Your task to perform on an android device: turn off notifications in google photos Image 0: 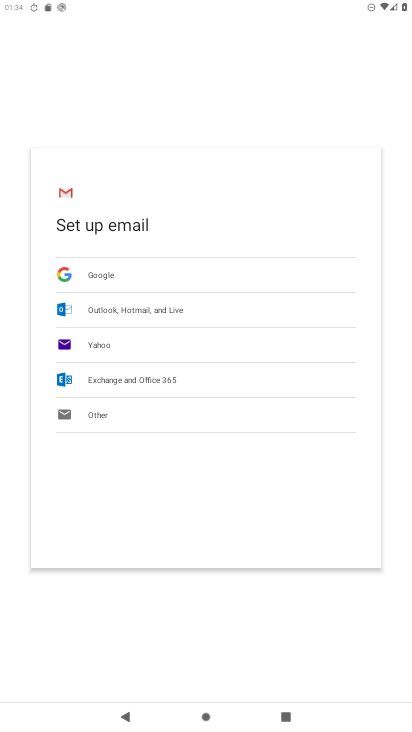
Step 0: press home button
Your task to perform on an android device: turn off notifications in google photos Image 1: 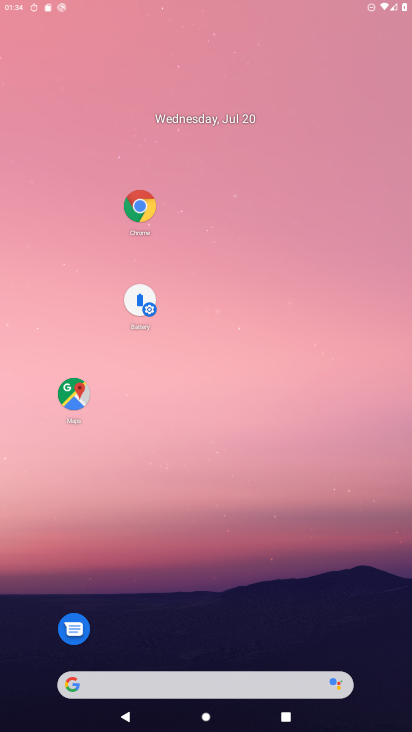
Step 1: drag from (269, 544) to (310, 209)
Your task to perform on an android device: turn off notifications in google photos Image 2: 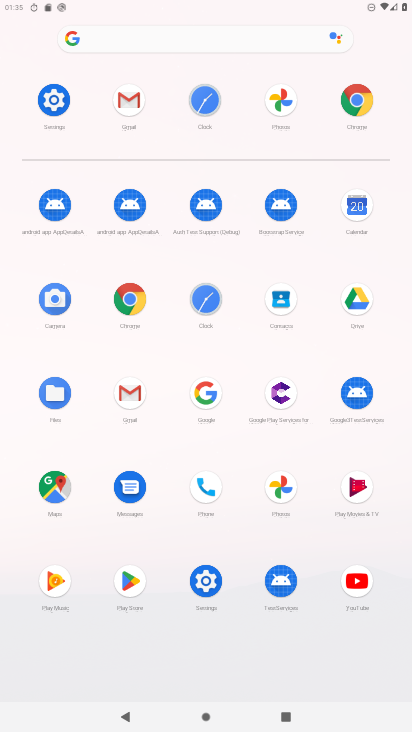
Step 2: click (276, 485)
Your task to perform on an android device: turn off notifications in google photos Image 3: 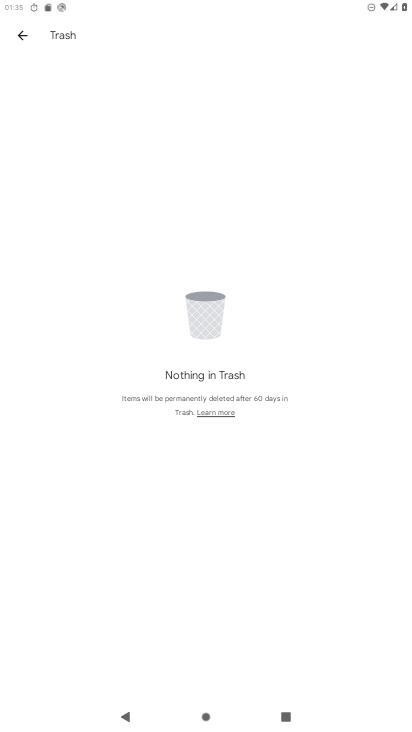
Step 3: drag from (270, 508) to (283, 430)
Your task to perform on an android device: turn off notifications in google photos Image 4: 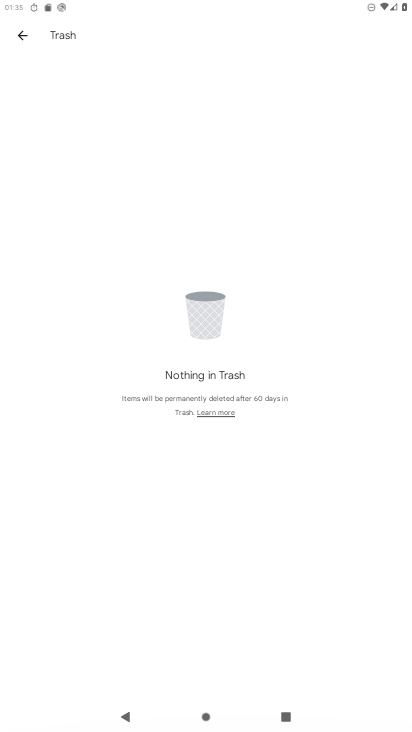
Step 4: click (316, 241)
Your task to perform on an android device: turn off notifications in google photos Image 5: 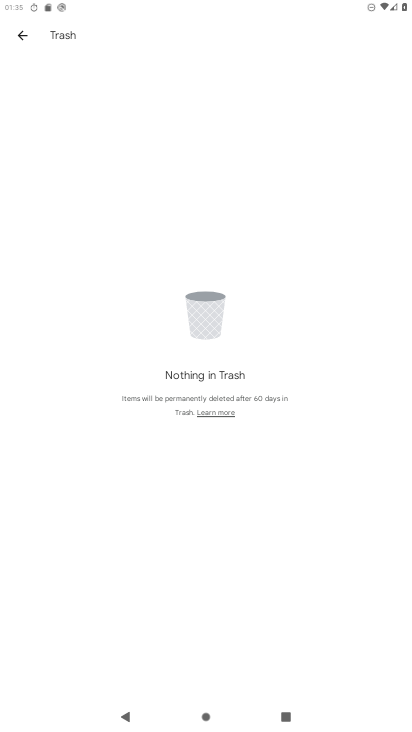
Step 5: drag from (320, 235) to (330, 199)
Your task to perform on an android device: turn off notifications in google photos Image 6: 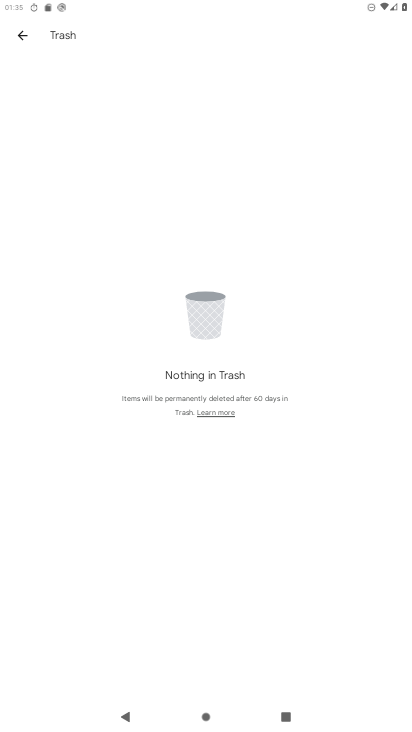
Step 6: click (338, 152)
Your task to perform on an android device: turn off notifications in google photos Image 7: 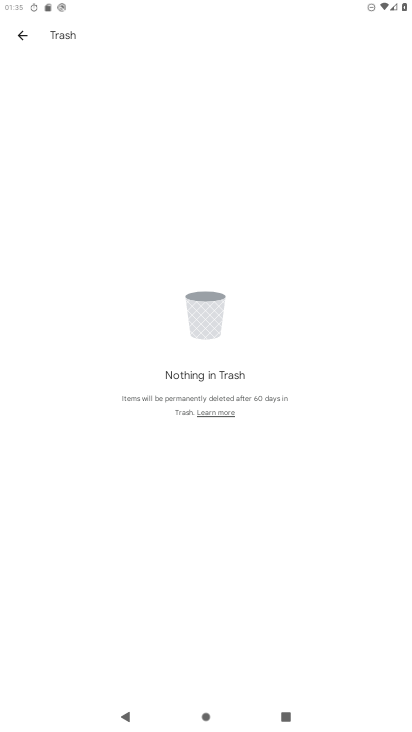
Step 7: drag from (219, 565) to (233, 342)
Your task to perform on an android device: turn off notifications in google photos Image 8: 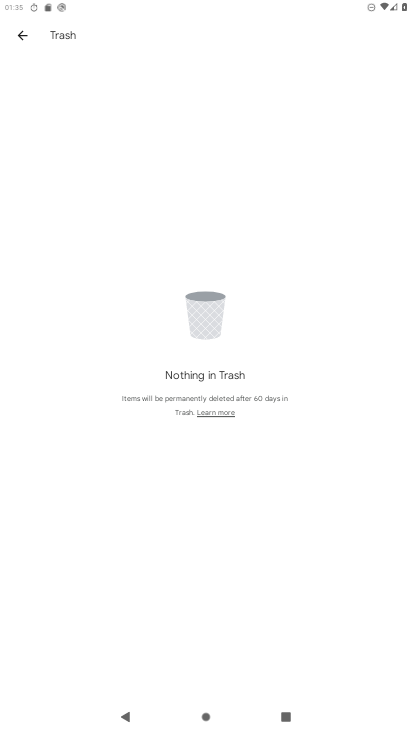
Step 8: drag from (233, 512) to (233, 451)
Your task to perform on an android device: turn off notifications in google photos Image 9: 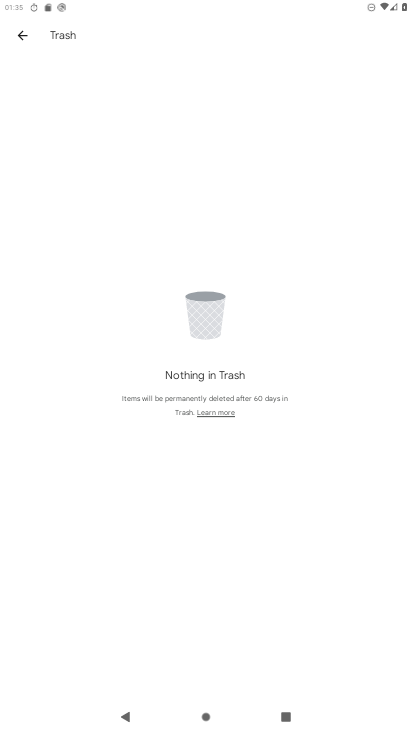
Step 9: click (263, 256)
Your task to perform on an android device: turn off notifications in google photos Image 10: 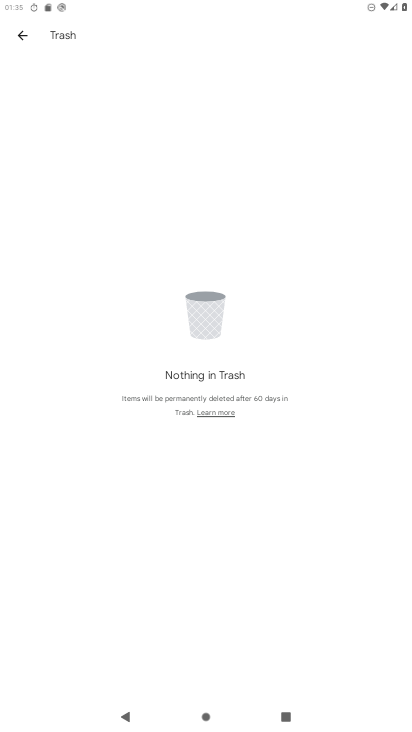
Step 10: click (267, 253)
Your task to perform on an android device: turn off notifications in google photos Image 11: 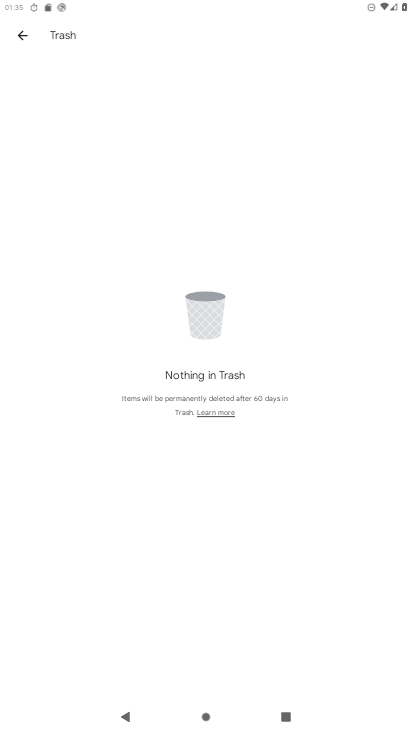
Step 11: click (18, 36)
Your task to perform on an android device: turn off notifications in google photos Image 12: 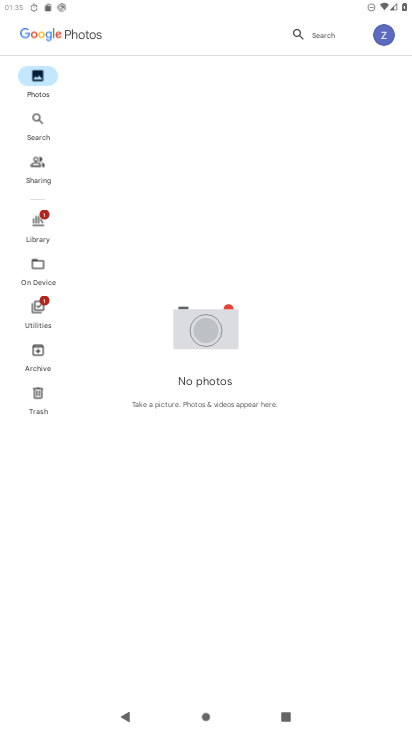
Step 12: click (381, 38)
Your task to perform on an android device: turn off notifications in google photos Image 13: 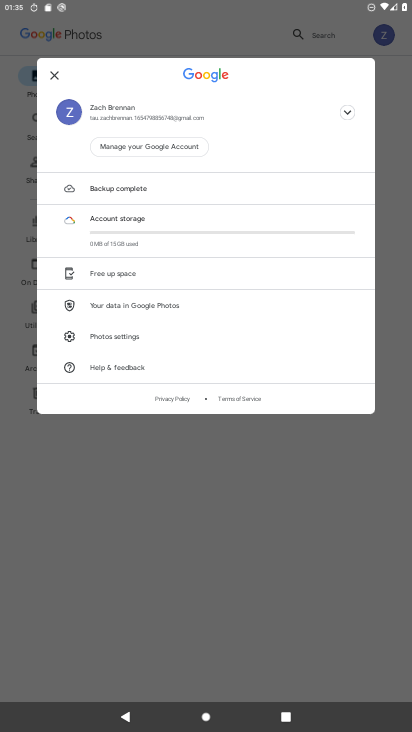
Step 13: click (98, 338)
Your task to perform on an android device: turn off notifications in google photos Image 14: 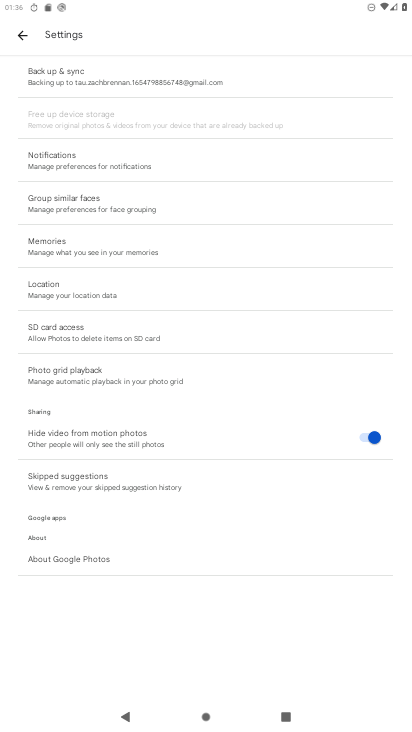
Step 14: click (75, 168)
Your task to perform on an android device: turn off notifications in google photos Image 15: 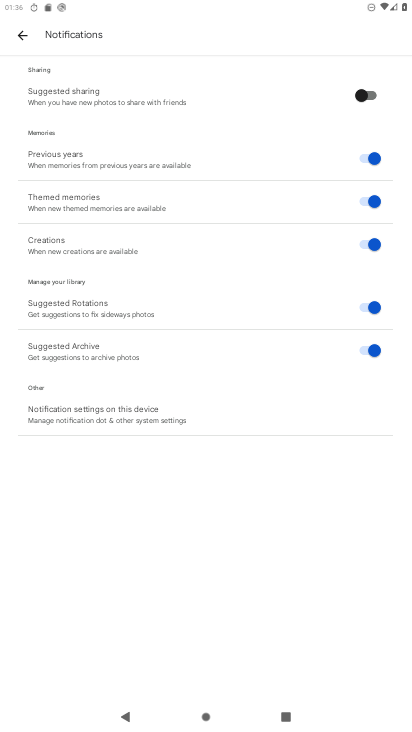
Step 15: click (82, 420)
Your task to perform on an android device: turn off notifications in google photos Image 16: 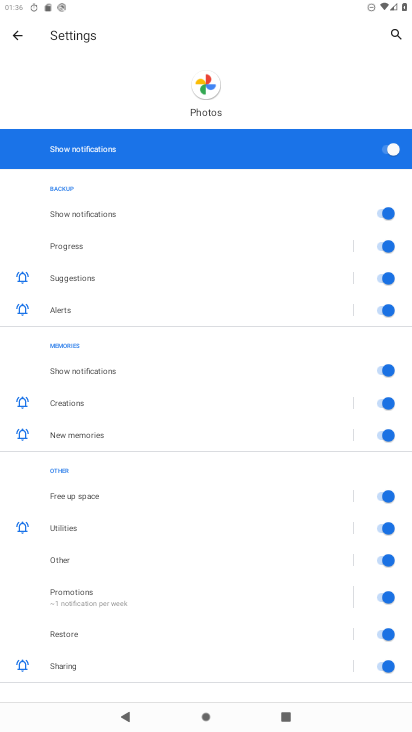
Step 16: click (393, 143)
Your task to perform on an android device: turn off notifications in google photos Image 17: 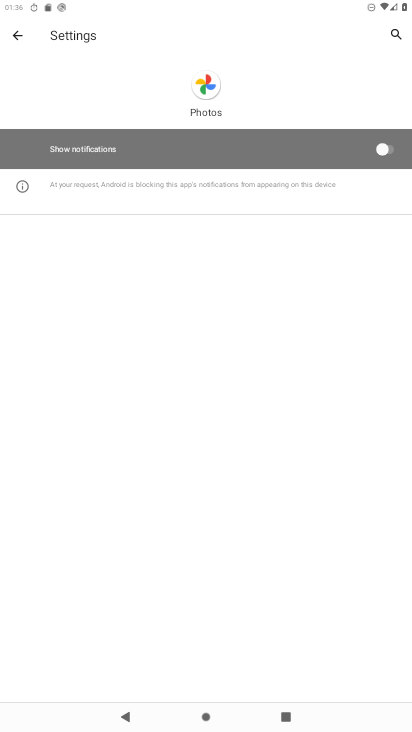
Step 17: task complete